Your task to perform on an android device: turn on location history Image 0: 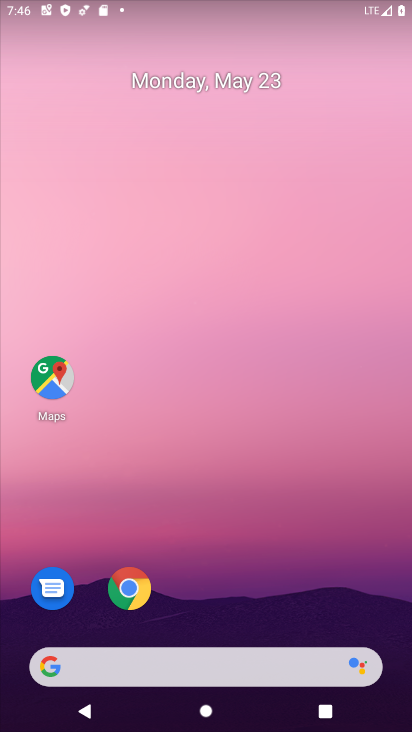
Step 0: drag from (400, 706) to (352, 160)
Your task to perform on an android device: turn on location history Image 1: 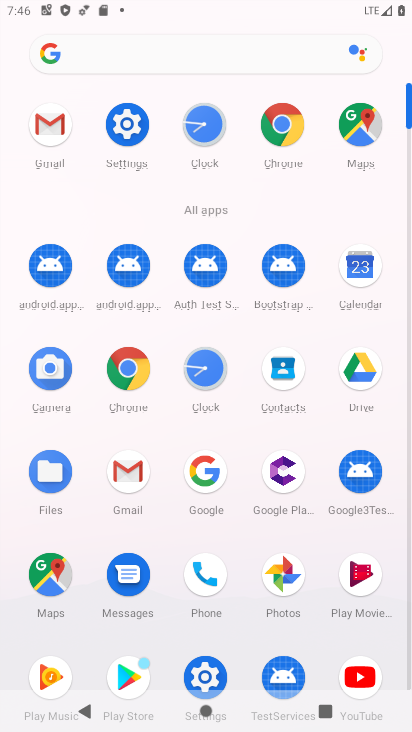
Step 1: click (128, 134)
Your task to perform on an android device: turn on location history Image 2: 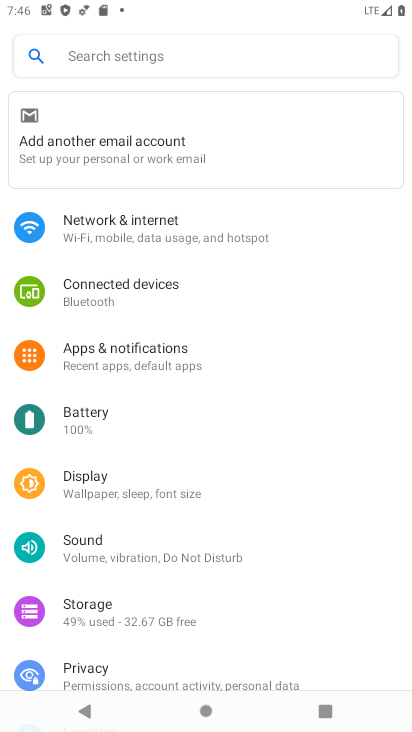
Step 2: drag from (320, 642) to (278, 288)
Your task to perform on an android device: turn on location history Image 3: 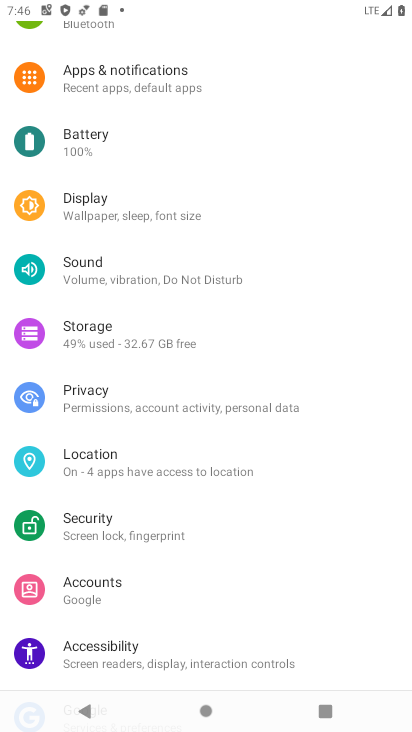
Step 3: click (78, 463)
Your task to perform on an android device: turn on location history Image 4: 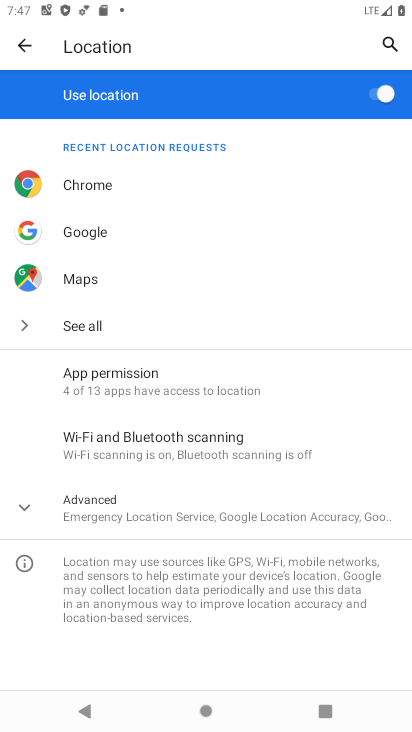
Step 4: click (36, 507)
Your task to perform on an android device: turn on location history Image 5: 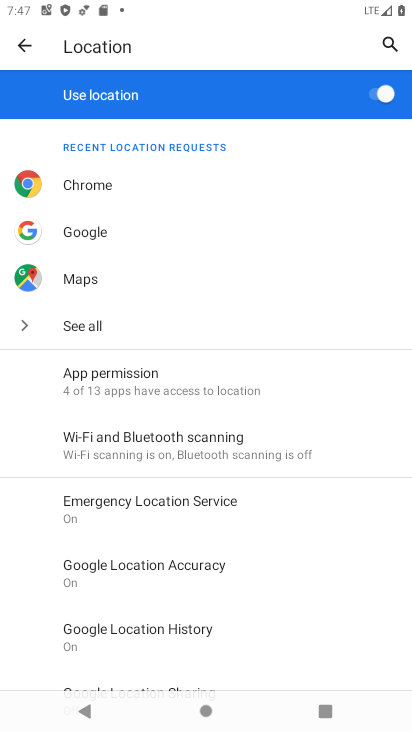
Step 5: drag from (347, 648) to (328, 338)
Your task to perform on an android device: turn on location history Image 6: 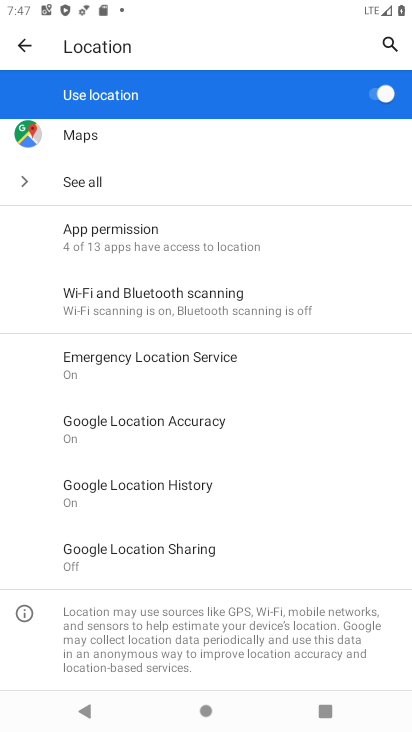
Step 6: click (142, 480)
Your task to perform on an android device: turn on location history Image 7: 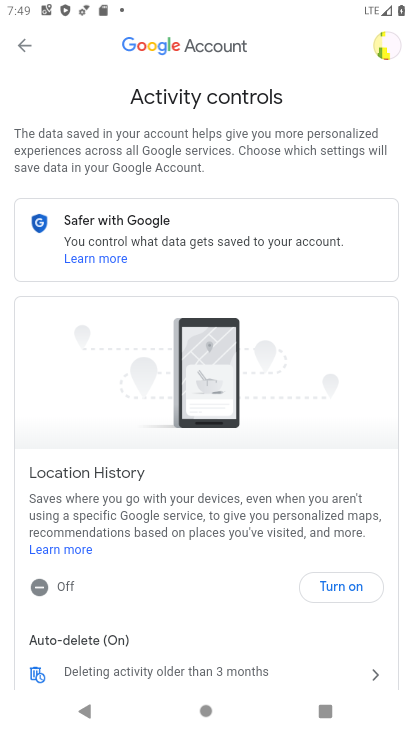
Step 7: task complete